Your task to perform on an android device: turn on javascript in the chrome app Image 0: 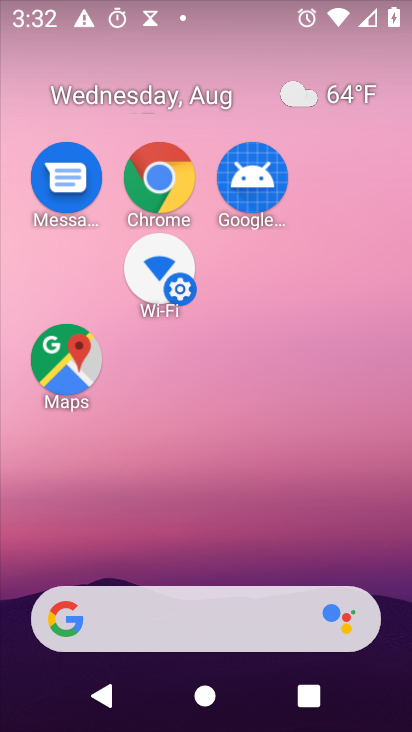
Step 0: press home button
Your task to perform on an android device: turn on javascript in the chrome app Image 1: 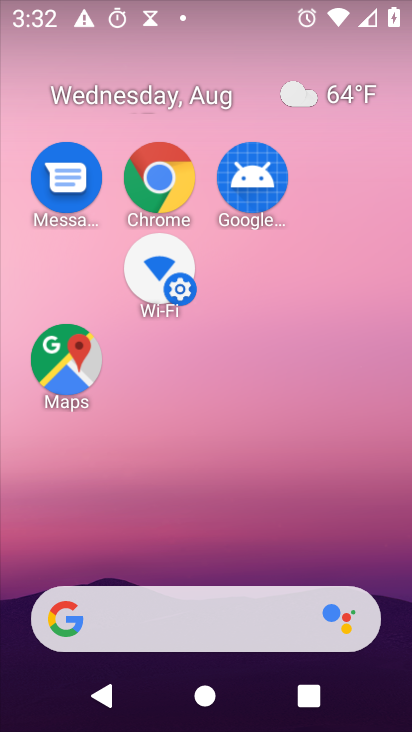
Step 1: click (168, 178)
Your task to perform on an android device: turn on javascript in the chrome app Image 2: 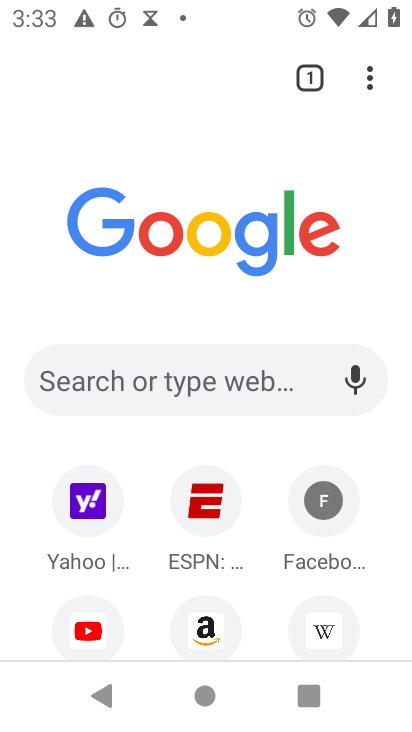
Step 2: drag from (366, 64) to (117, 559)
Your task to perform on an android device: turn on javascript in the chrome app Image 3: 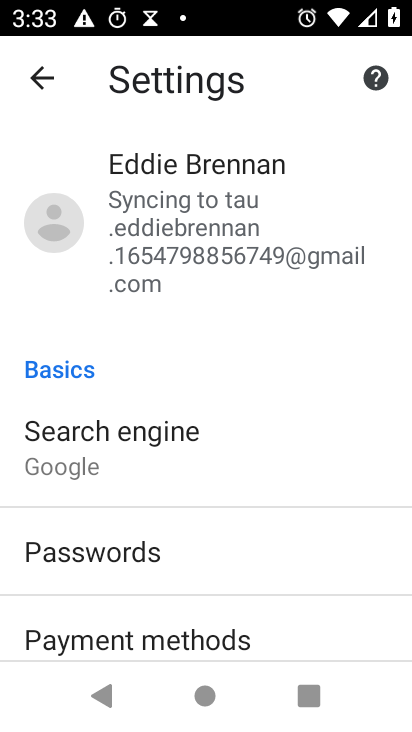
Step 3: drag from (307, 610) to (299, 119)
Your task to perform on an android device: turn on javascript in the chrome app Image 4: 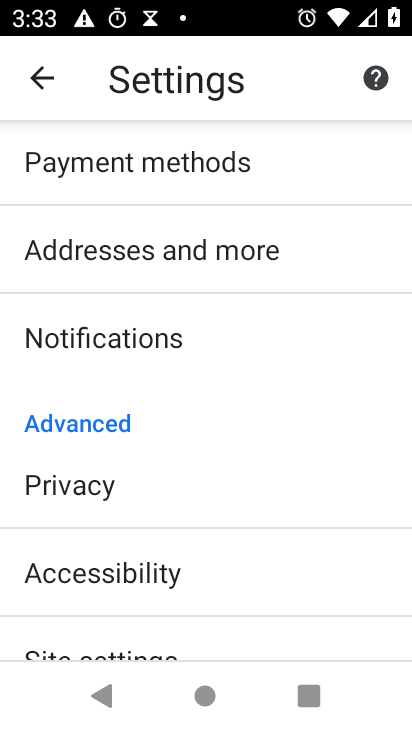
Step 4: click (146, 654)
Your task to perform on an android device: turn on javascript in the chrome app Image 5: 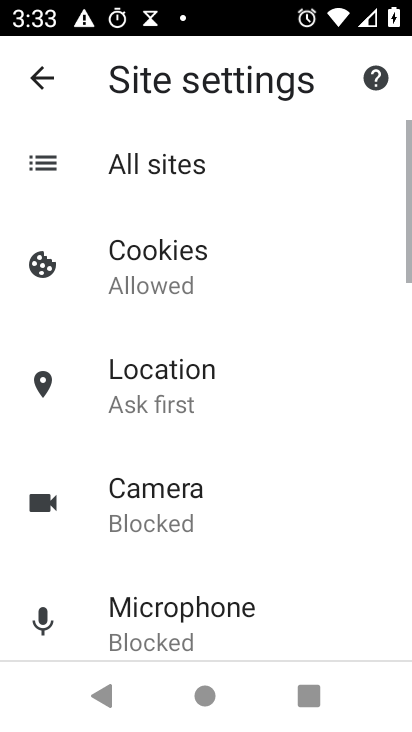
Step 5: drag from (321, 559) to (383, 172)
Your task to perform on an android device: turn on javascript in the chrome app Image 6: 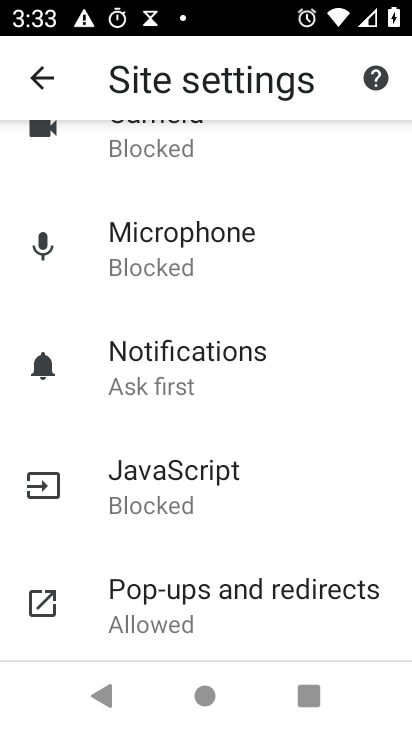
Step 6: click (170, 480)
Your task to perform on an android device: turn on javascript in the chrome app Image 7: 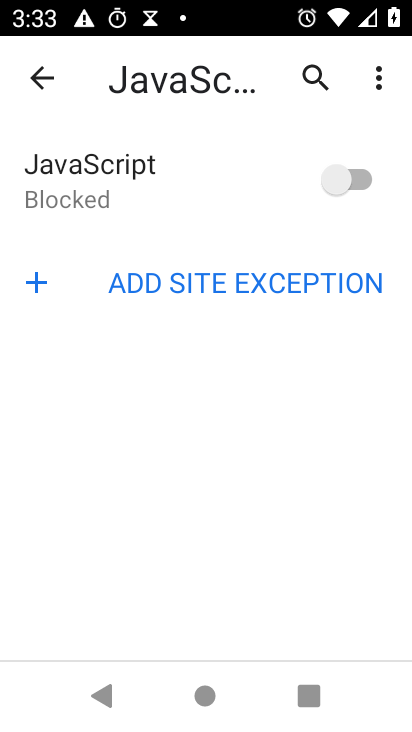
Step 7: click (335, 173)
Your task to perform on an android device: turn on javascript in the chrome app Image 8: 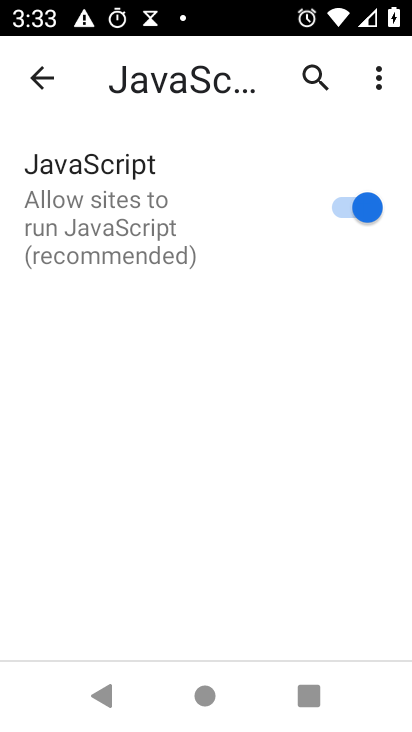
Step 8: task complete